Your task to perform on an android device: Open Chrome and go to the settings page Image 0: 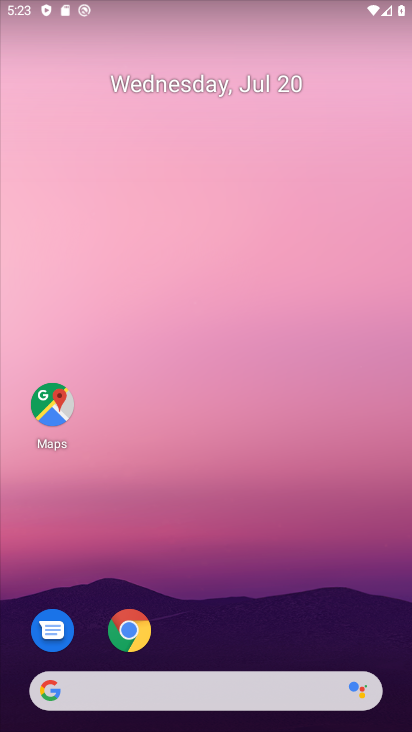
Step 0: drag from (257, 683) to (280, 66)
Your task to perform on an android device: Open Chrome and go to the settings page Image 1: 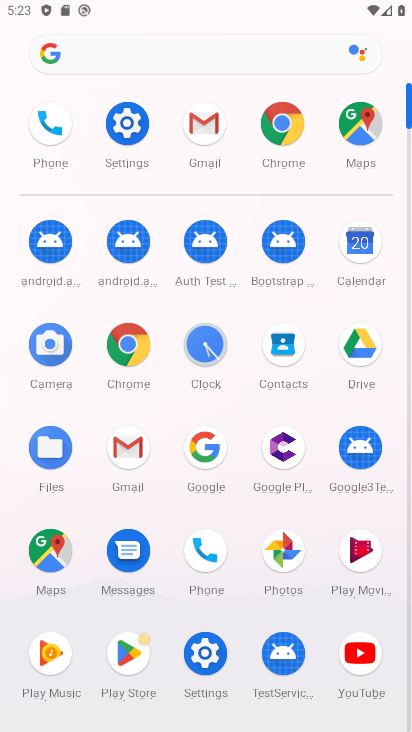
Step 1: click (211, 653)
Your task to perform on an android device: Open Chrome and go to the settings page Image 2: 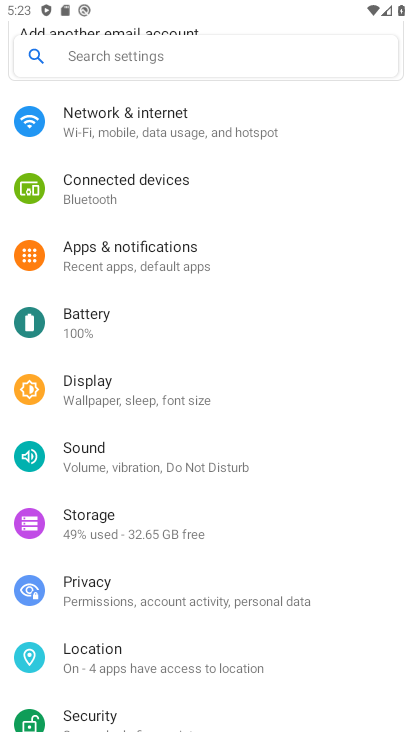
Step 2: task complete